Your task to perform on an android device: Open Amazon Image 0: 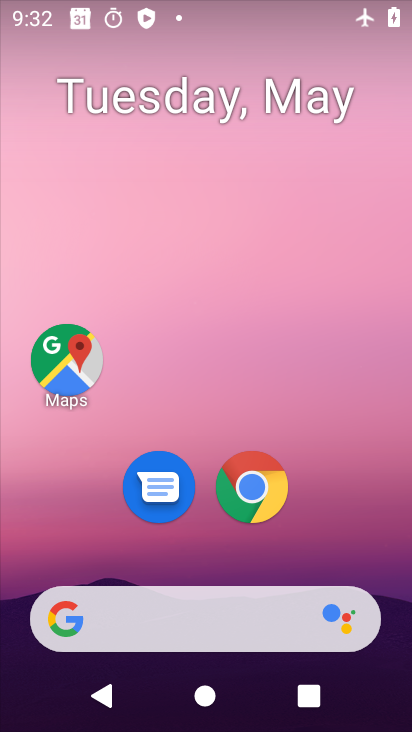
Step 0: drag from (191, 553) to (210, 309)
Your task to perform on an android device: Open Amazon Image 1: 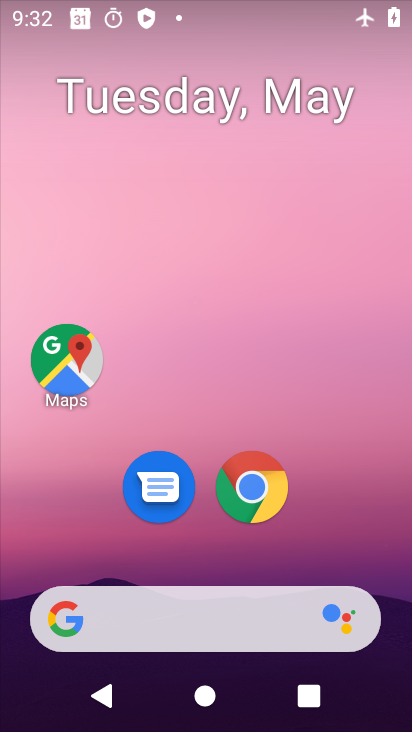
Step 1: click (257, 488)
Your task to perform on an android device: Open Amazon Image 2: 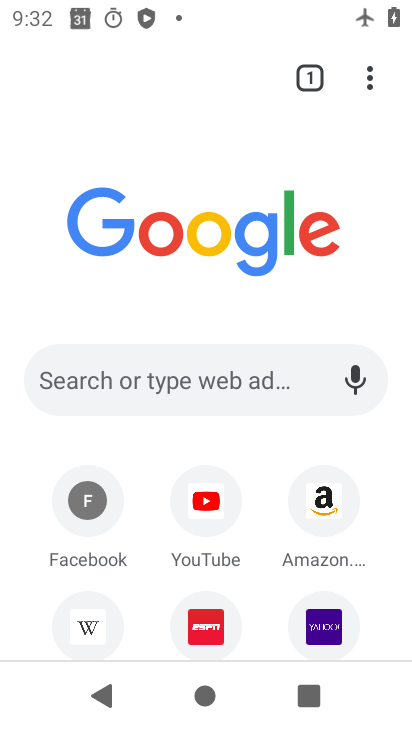
Step 2: click (324, 522)
Your task to perform on an android device: Open Amazon Image 3: 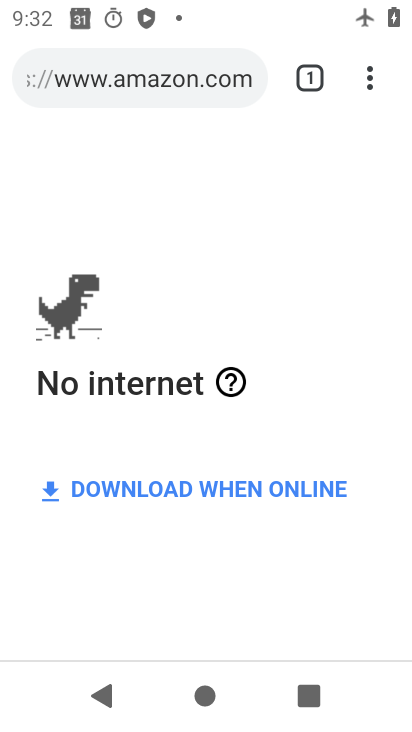
Step 3: drag from (144, 597) to (253, 288)
Your task to perform on an android device: Open Amazon Image 4: 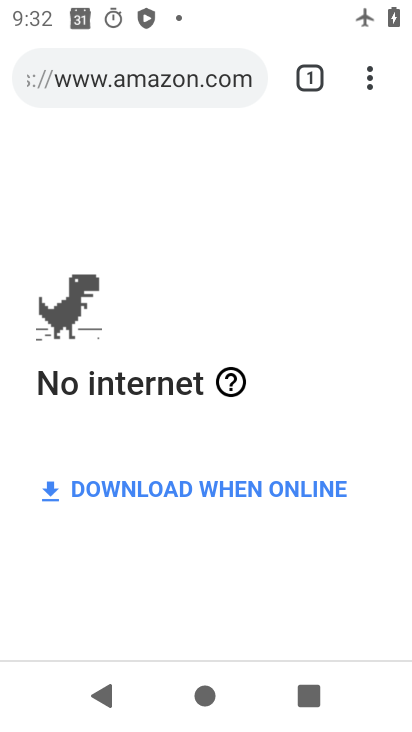
Step 4: drag from (248, 565) to (294, 287)
Your task to perform on an android device: Open Amazon Image 5: 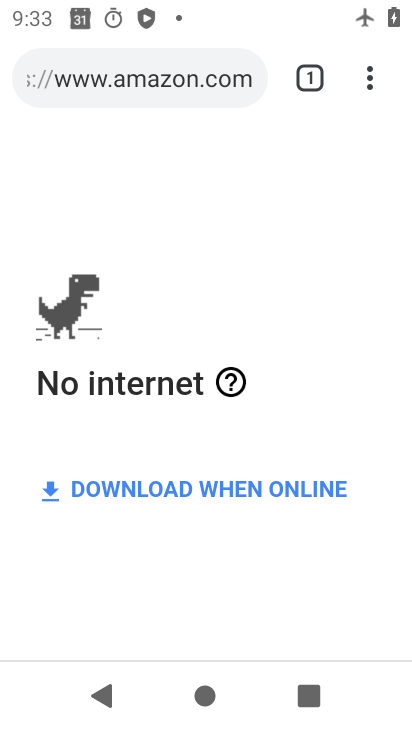
Step 5: drag from (241, 566) to (266, 335)
Your task to perform on an android device: Open Amazon Image 6: 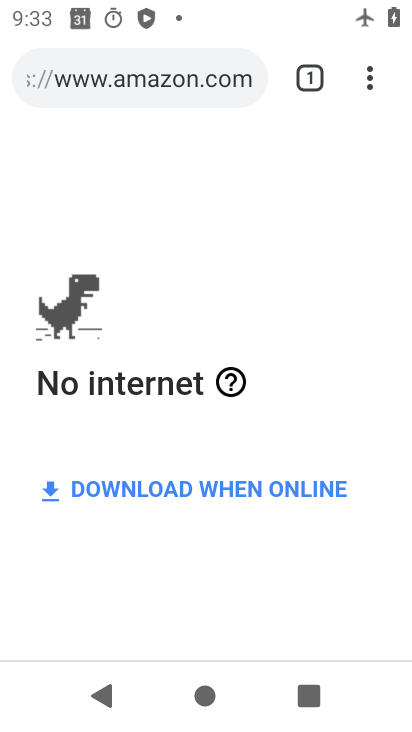
Step 6: click (300, 68)
Your task to perform on an android device: Open Amazon Image 7: 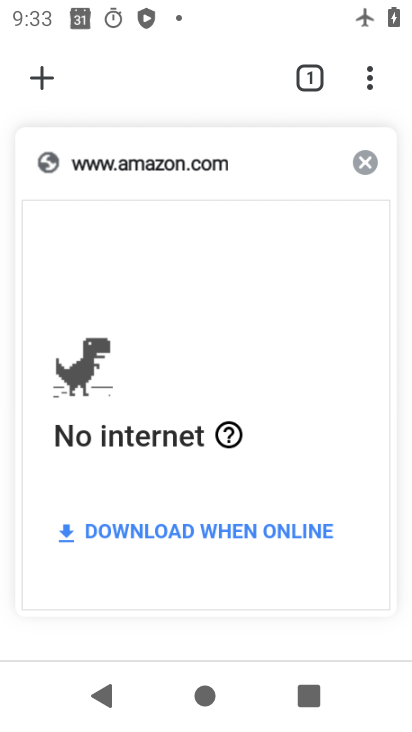
Step 7: click (53, 66)
Your task to perform on an android device: Open Amazon Image 8: 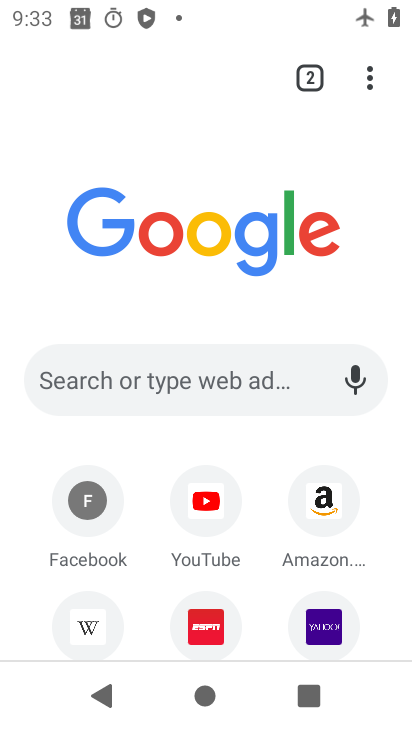
Step 8: click (318, 506)
Your task to perform on an android device: Open Amazon Image 9: 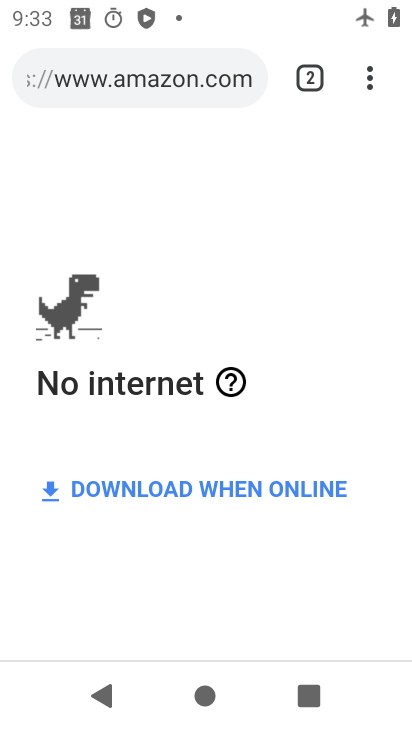
Step 9: task complete